Your task to perform on an android device: Open Maps and search for coffee Image 0: 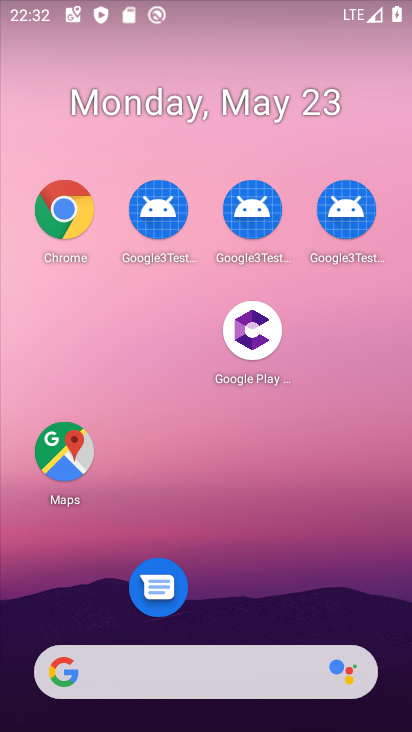
Step 0: click (66, 437)
Your task to perform on an android device: Open Maps and search for coffee Image 1: 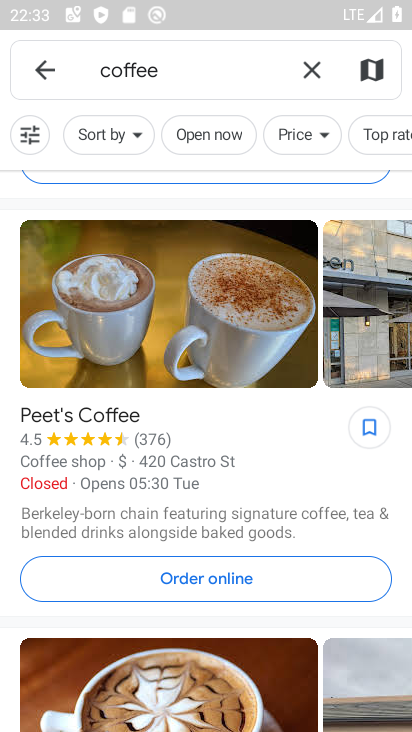
Step 1: task complete